Your task to perform on an android device: turn on notifications settings in the gmail app Image 0: 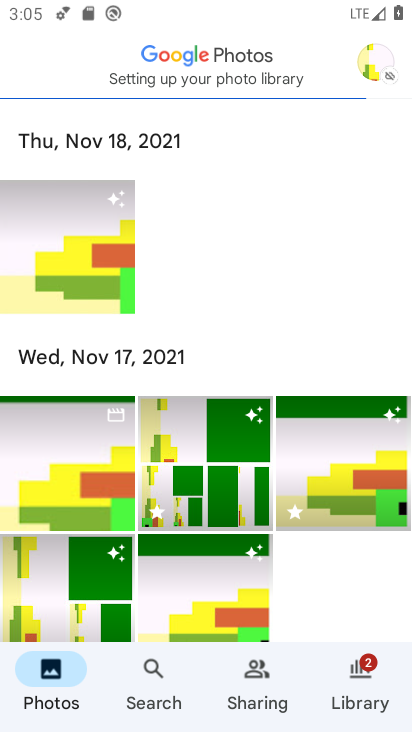
Step 0: press home button
Your task to perform on an android device: turn on notifications settings in the gmail app Image 1: 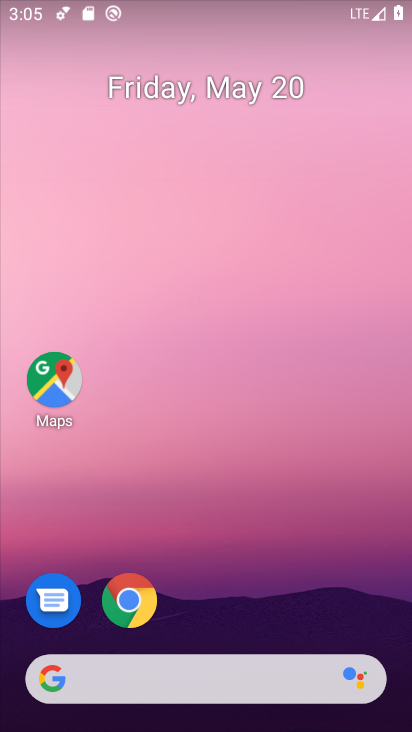
Step 1: drag from (370, 610) to (357, 190)
Your task to perform on an android device: turn on notifications settings in the gmail app Image 2: 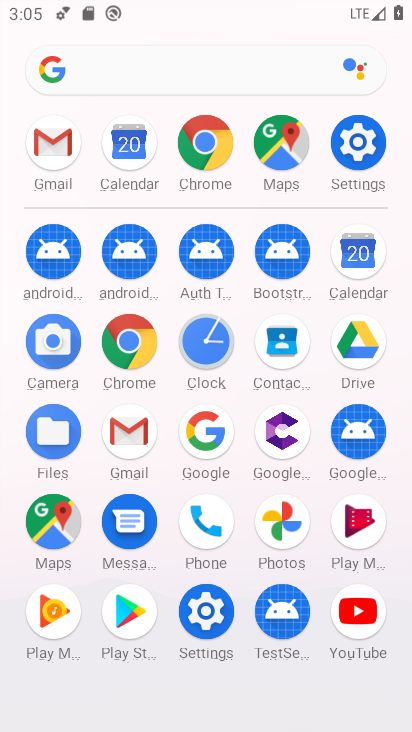
Step 2: click (139, 443)
Your task to perform on an android device: turn on notifications settings in the gmail app Image 3: 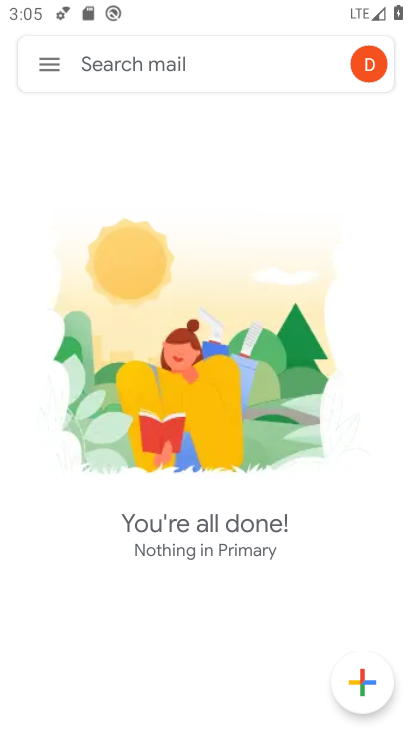
Step 3: click (50, 71)
Your task to perform on an android device: turn on notifications settings in the gmail app Image 4: 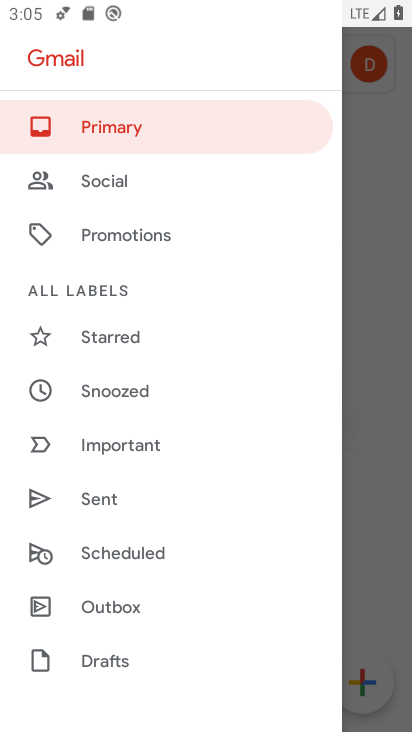
Step 4: drag from (254, 460) to (256, 372)
Your task to perform on an android device: turn on notifications settings in the gmail app Image 5: 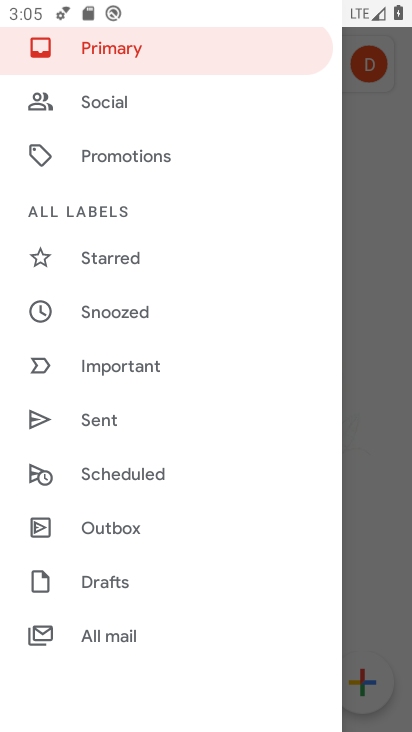
Step 5: drag from (277, 526) to (281, 436)
Your task to perform on an android device: turn on notifications settings in the gmail app Image 6: 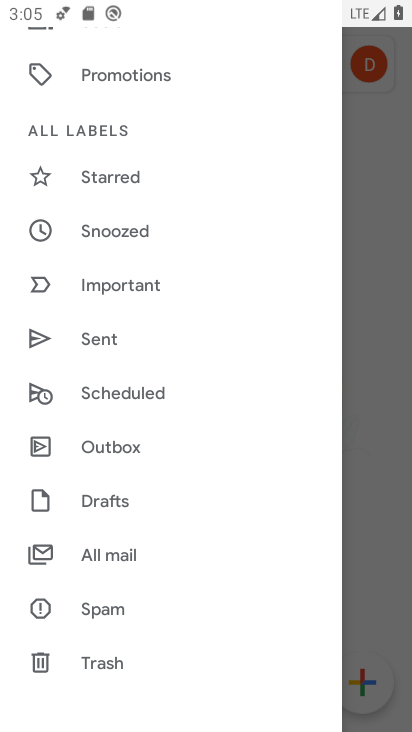
Step 6: drag from (271, 547) to (274, 462)
Your task to perform on an android device: turn on notifications settings in the gmail app Image 7: 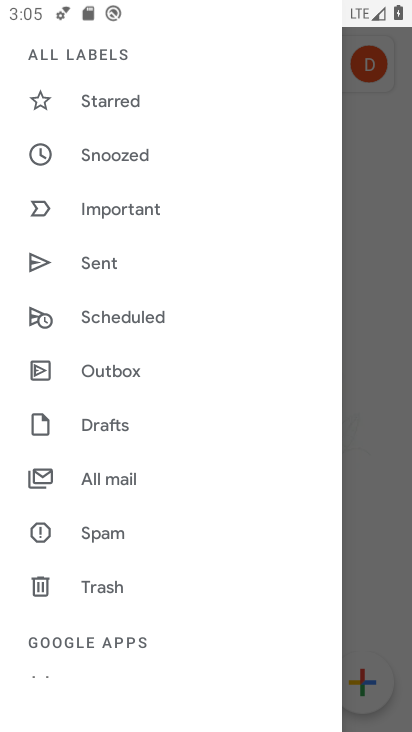
Step 7: drag from (274, 549) to (271, 466)
Your task to perform on an android device: turn on notifications settings in the gmail app Image 8: 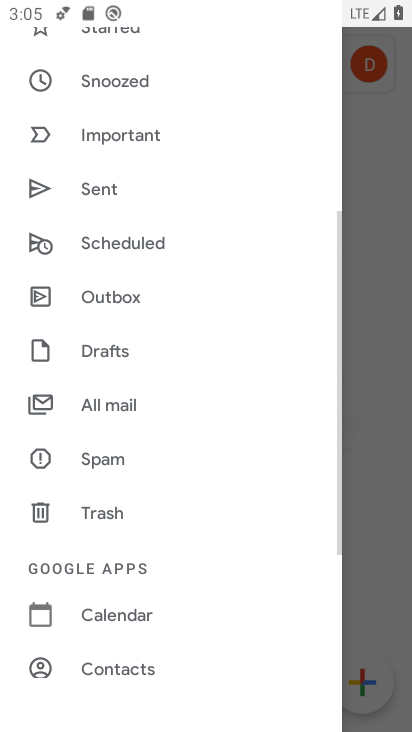
Step 8: drag from (254, 569) to (256, 468)
Your task to perform on an android device: turn on notifications settings in the gmail app Image 9: 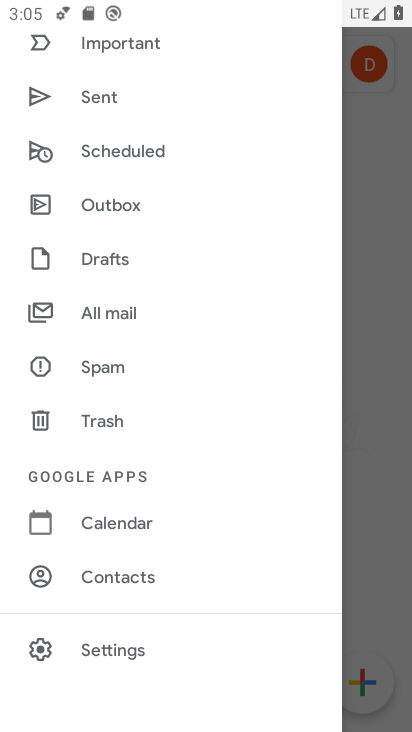
Step 9: drag from (254, 623) to (255, 529)
Your task to perform on an android device: turn on notifications settings in the gmail app Image 10: 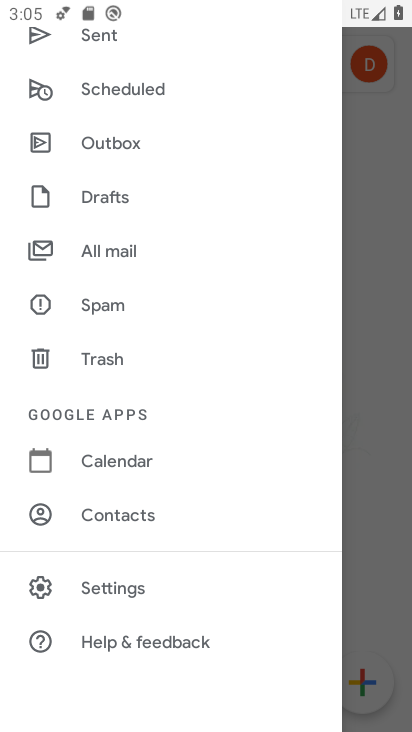
Step 10: drag from (253, 622) to (252, 516)
Your task to perform on an android device: turn on notifications settings in the gmail app Image 11: 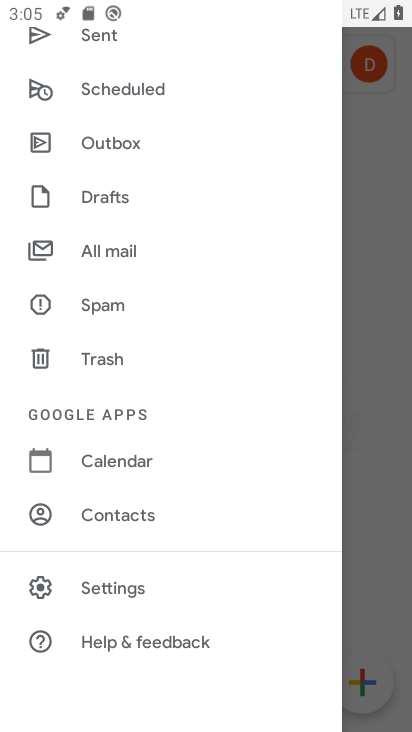
Step 11: drag from (237, 412) to (237, 494)
Your task to perform on an android device: turn on notifications settings in the gmail app Image 12: 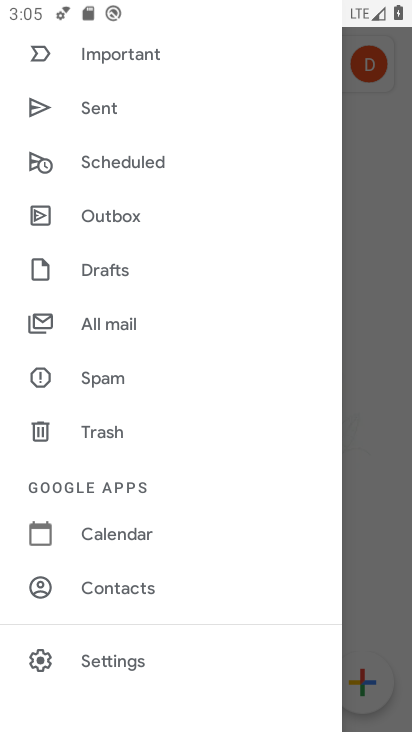
Step 12: drag from (233, 600) to (235, 412)
Your task to perform on an android device: turn on notifications settings in the gmail app Image 13: 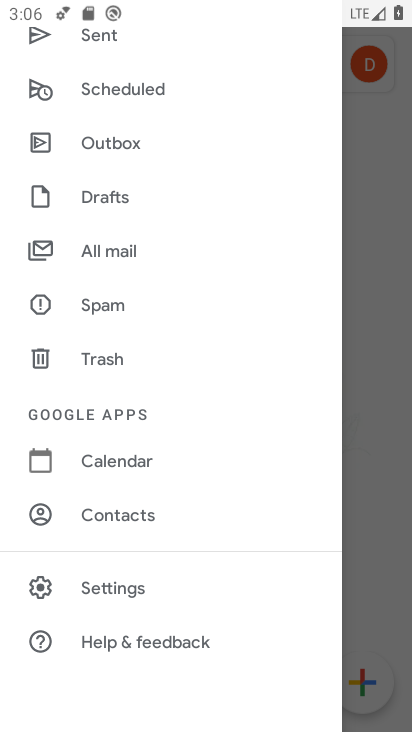
Step 13: click (172, 598)
Your task to perform on an android device: turn on notifications settings in the gmail app Image 14: 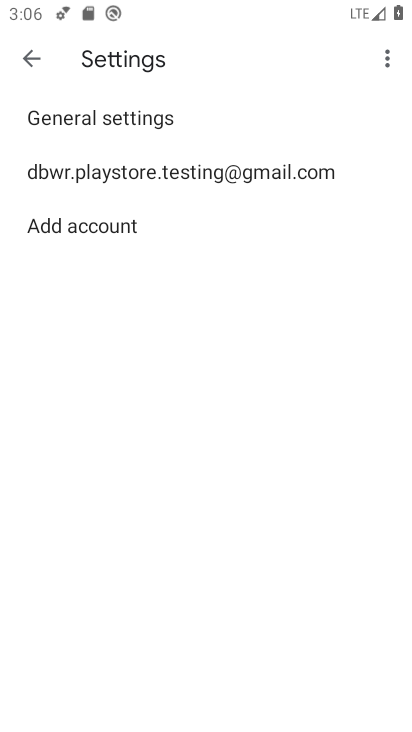
Step 14: click (260, 168)
Your task to perform on an android device: turn on notifications settings in the gmail app Image 15: 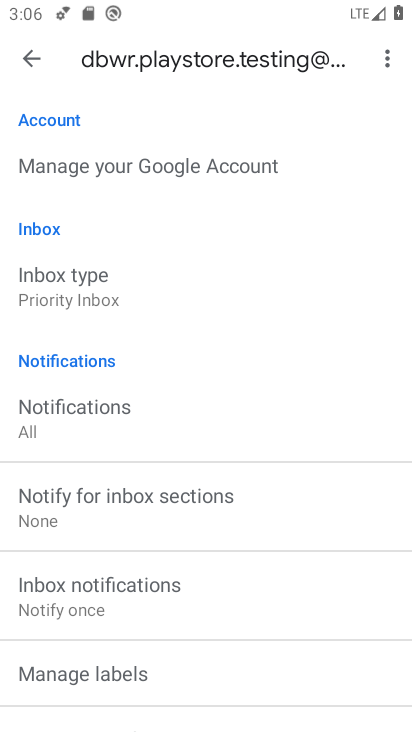
Step 15: drag from (300, 538) to (302, 426)
Your task to perform on an android device: turn on notifications settings in the gmail app Image 16: 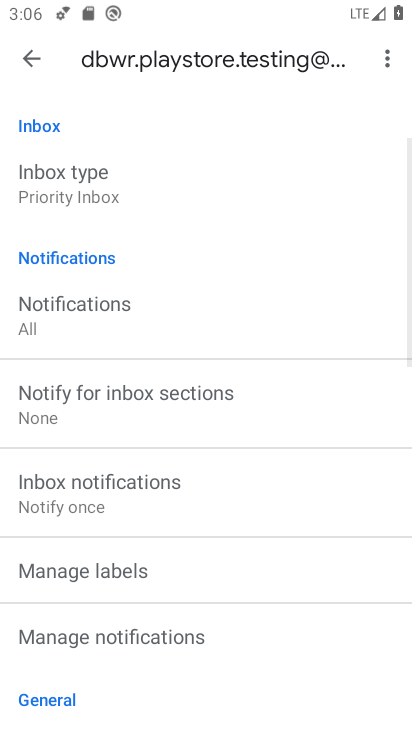
Step 16: drag from (302, 553) to (301, 463)
Your task to perform on an android device: turn on notifications settings in the gmail app Image 17: 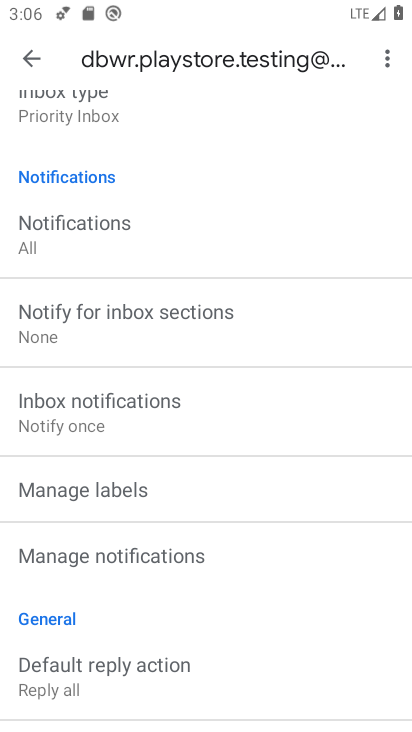
Step 17: drag from (311, 586) to (305, 500)
Your task to perform on an android device: turn on notifications settings in the gmail app Image 18: 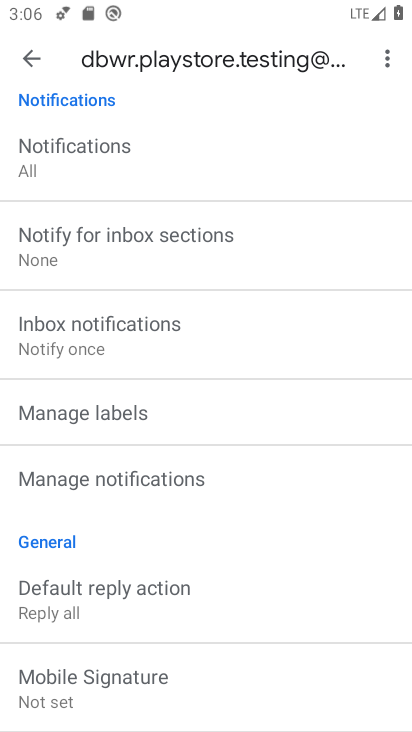
Step 18: click (307, 634)
Your task to perform on an android device: turn on notifications settings in the gmail app Image 19: 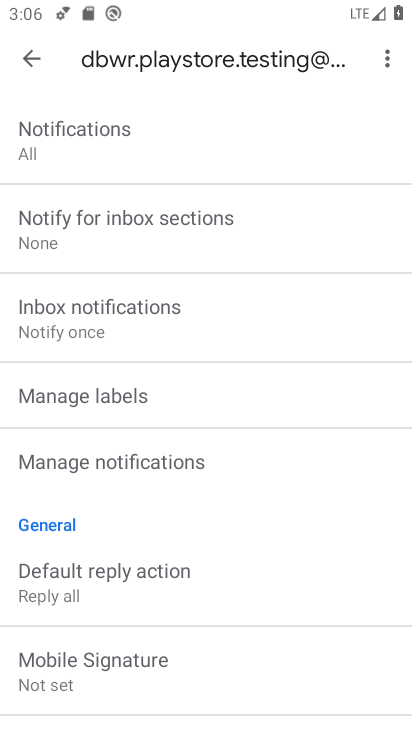
Step 19: drag from (303, 630) to (301, 547)
Your task to perform on an android device: turn on notifications settings in the gmail app Image 20: 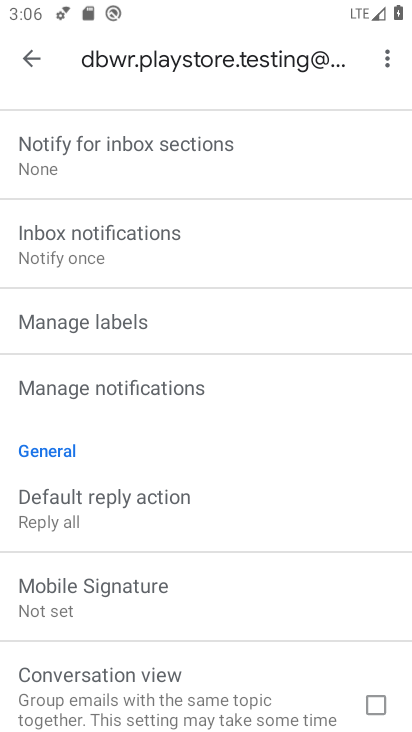
Step 20: drag from (311, 662) to (302, 566)
Your task to perform on an android device: turn on notifications settings in the gmail app Image 21: 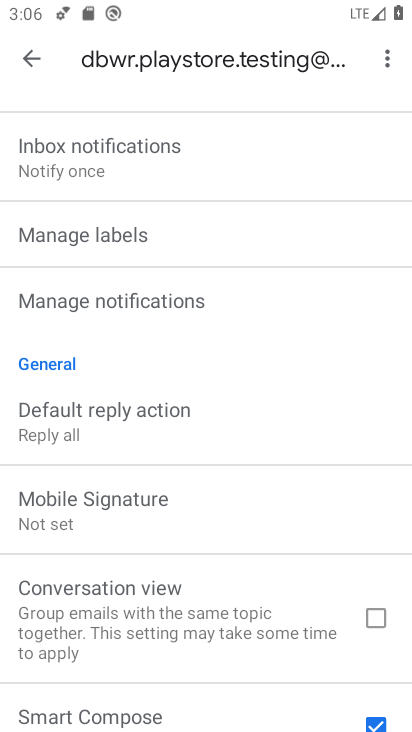
Step 21: drag from (312, 666) to (308, 556)
Your task to perform on an android device: turn on notifications settings in the gmail app Image 22: 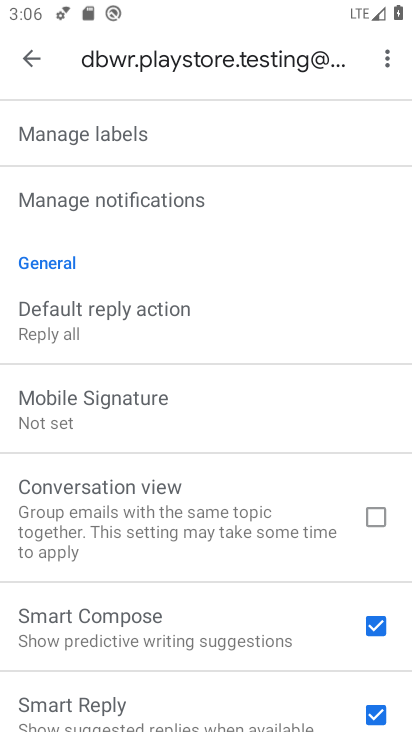
Step 22: drag from (306, 689) to (300, 565)
Your task to perform on an android device: turn on notifications settings in the gmail app Image 23: 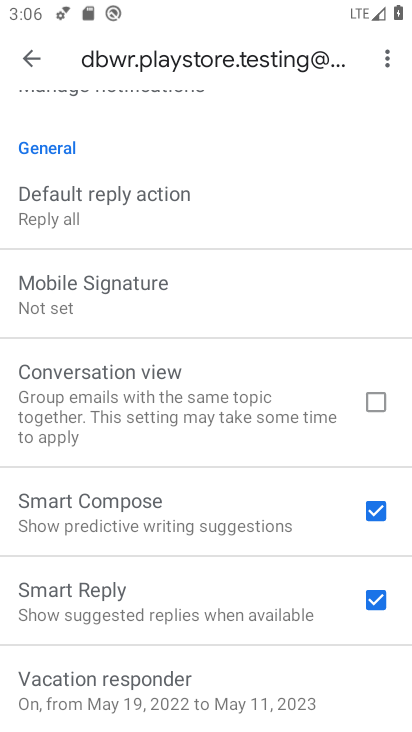
Step 23: drag from (313, 679) to (313, 557)
Your task to perform on an android device: turn on notifications settings in the gmail app Image 24: 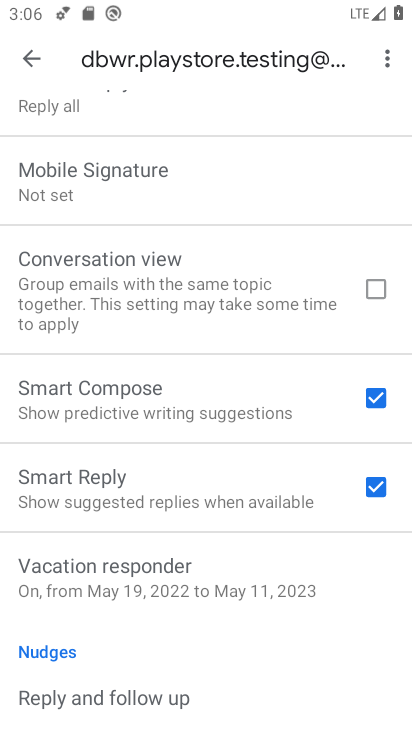
Step 24: drag from (329, 675) to (318, 533)
Your task to perform on an android device: turn on notifications settings in the gmail app Image 25: 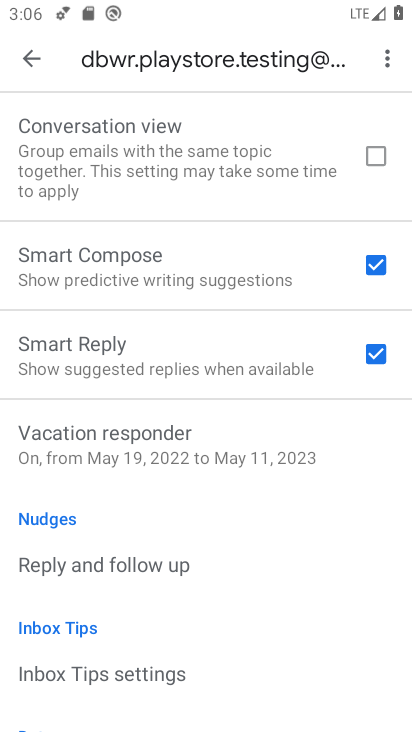
Step 25: drag from (308, 666) to (307, 526)
Your task to perform on an android device: turn on notifications settings in the gmail app Image 26: 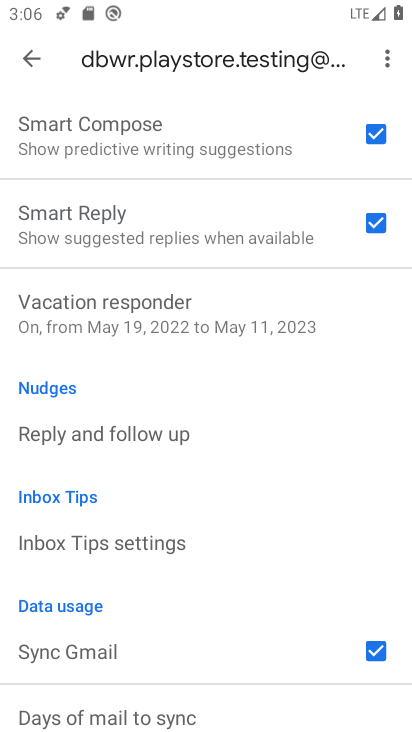
Step 26: drag from (297, 665) to (288, 554)
Your task to perform on an android device: turn on notifications settings in the gmail app Image 27: 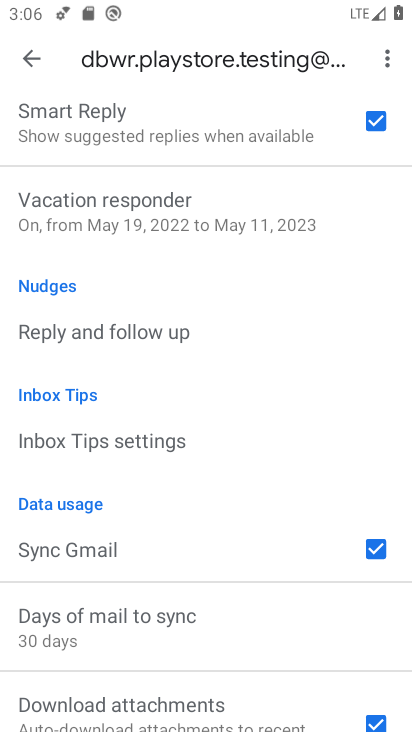
Step 27: drag from (293, 670) to (286, 542)
Your task to perform on an android device: turn on notifications settings in the gmail app Image 28: 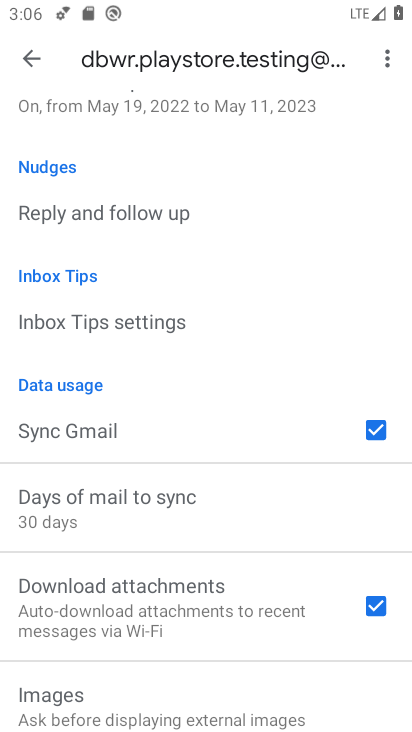
Step 28: drag from (302, 641) to (303, 491)
Your task to perform on an android device: turn on notifications settings in the gmail app Image 29: 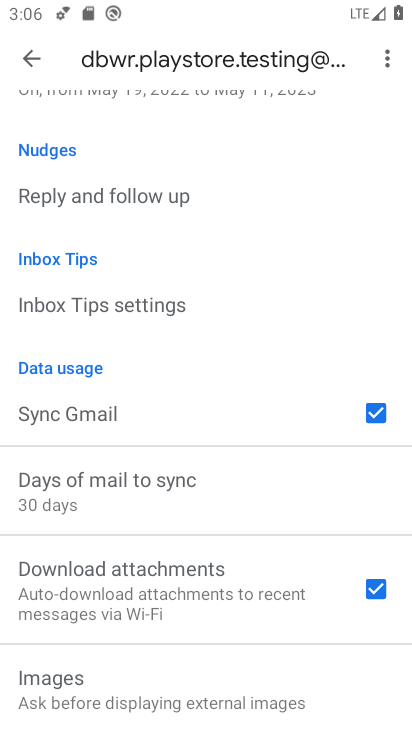
Step 29: drag from (288, 375) to (281, 482)
Your task to perform on an android device: turn on notifications settings in the gmail app Image 30: 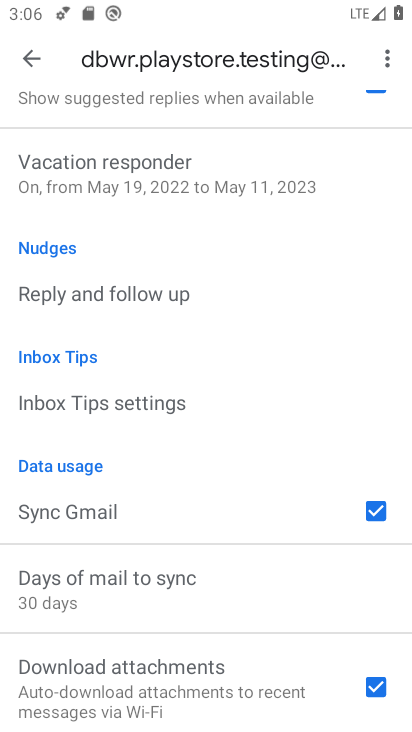
Step 30: drag from (284, 345) to (275, 517)
Your task to perform on an android device: turn on notifications settings in the gmail app Image 31: 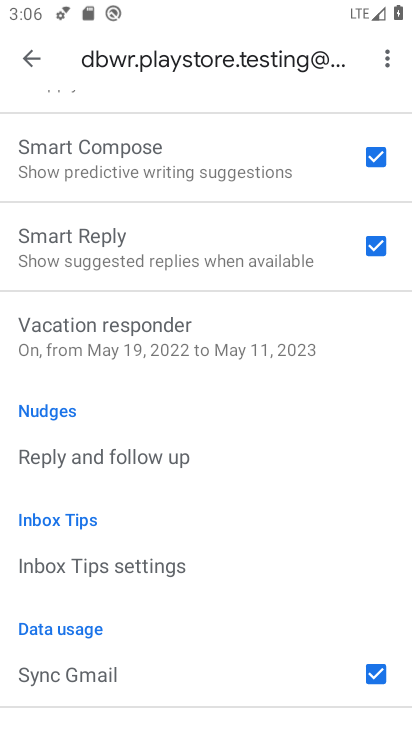
Step 31: drag from (293, 319) to (294, 490)
Your task to perform on an android device: turn on notifications settings in the gmail app Image 32: 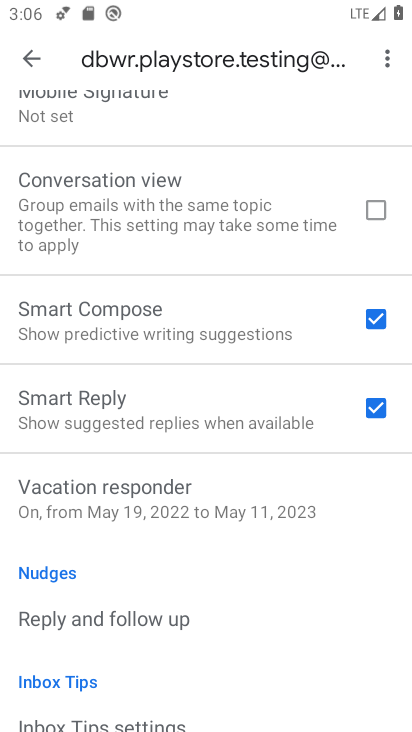
Step 32: drag from (293, 276) to (286, 448)
Your task to perform on an android device: turn on notifications settings in the gmail app Image 33: 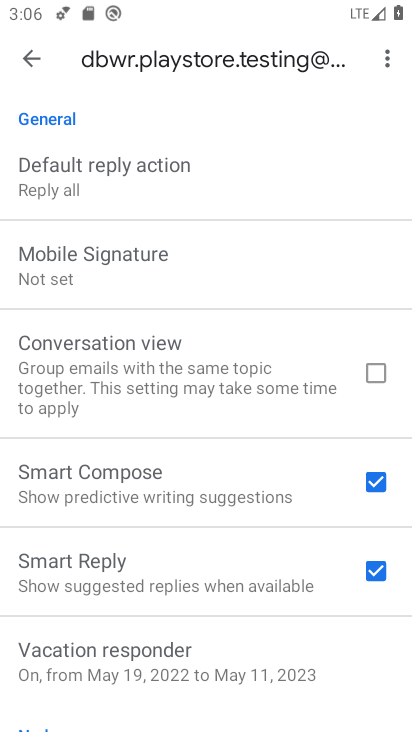
Step 33: drag from (277, 264) to (260, 472)
Your task to perform on an android device: turn on notifications settings in the gmail app Image 34: 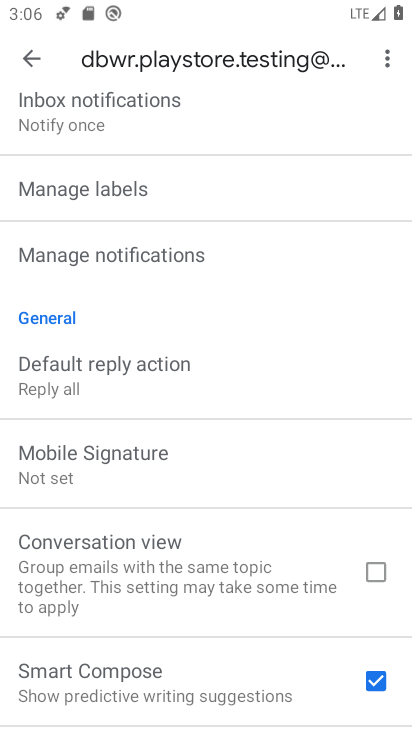
Step 34: drag from (259, 331) to (243, 431)
Your task to perform on an android device: turn on notifications settings in the gmail app Image 35: 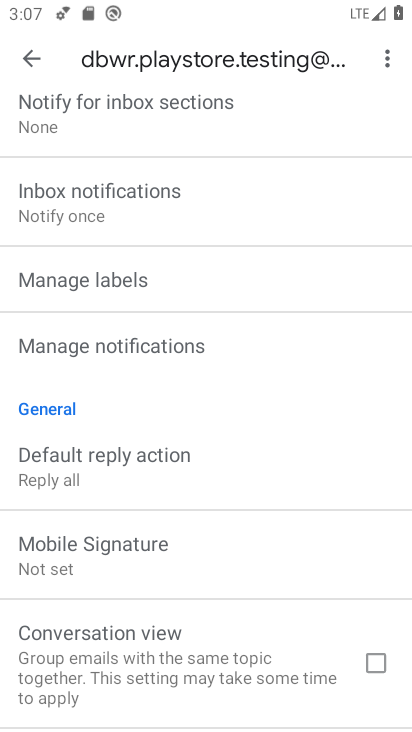
Step 35: click (185, 346)
Your task to perform on an android device: turn on notifications settings in the gmail app Image 36: 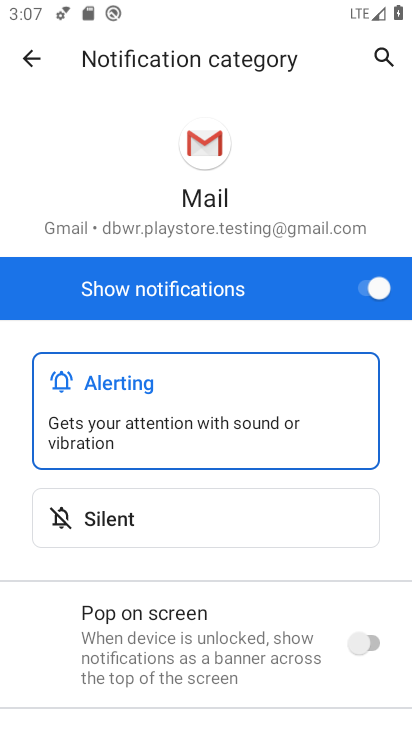
Step 36: task complete